Your task to perform on an android device: turn off wifi Image 0: 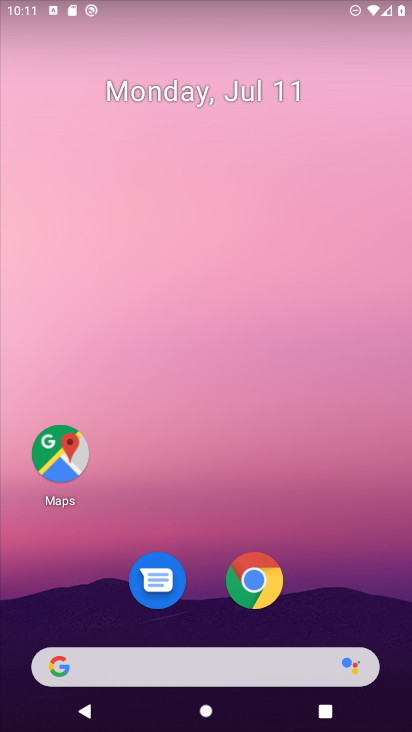
Step 0: drag from (229, 475) to (254, 24)
Your task to perform on an android device: turn off wifi Image 1: 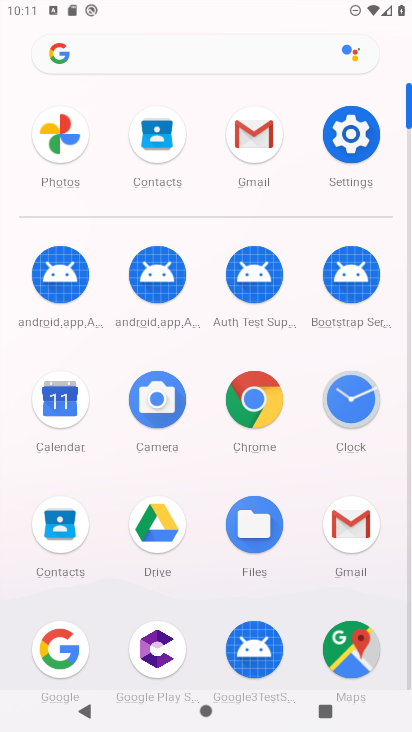
Step 1: click (336, 133)
Your task to perform on an android device: turn off wifi Image 2: 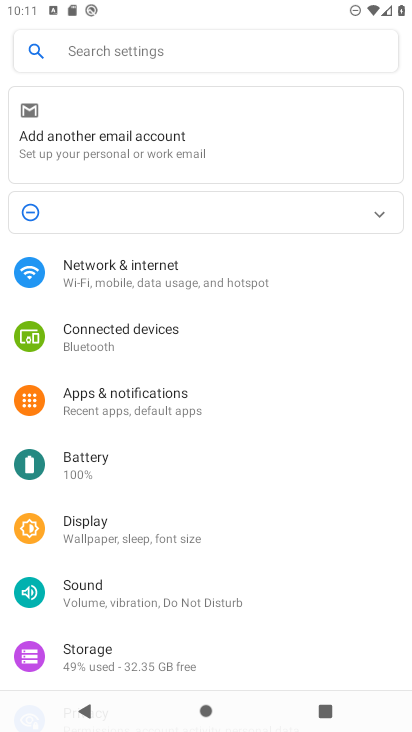
Step 2: click (196, 281)
Your task to perform on an android device: turn off wifi Image 3: 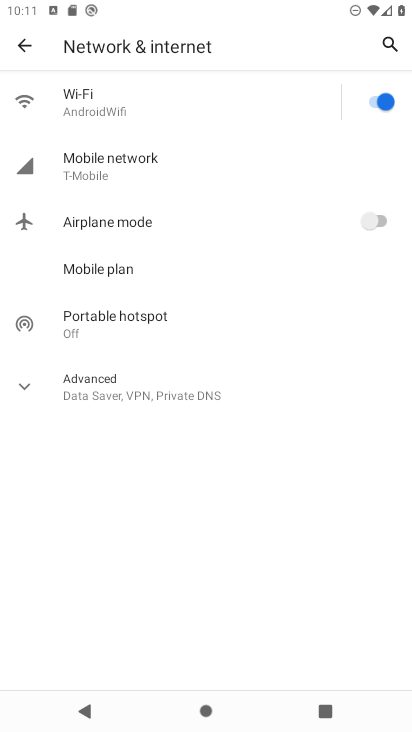
Step 3: click (373, 92)
Your task to perform on an android device: turn off wifi Image 4: 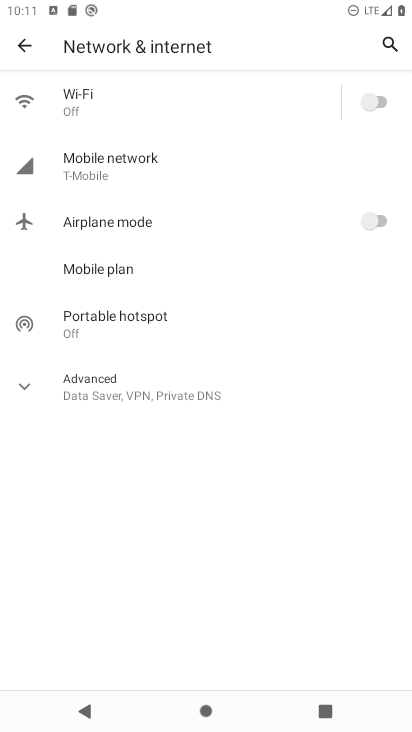
Step 4: task complete